Your task to perform on an android device: turn off data saver in the chrome app Image 0: 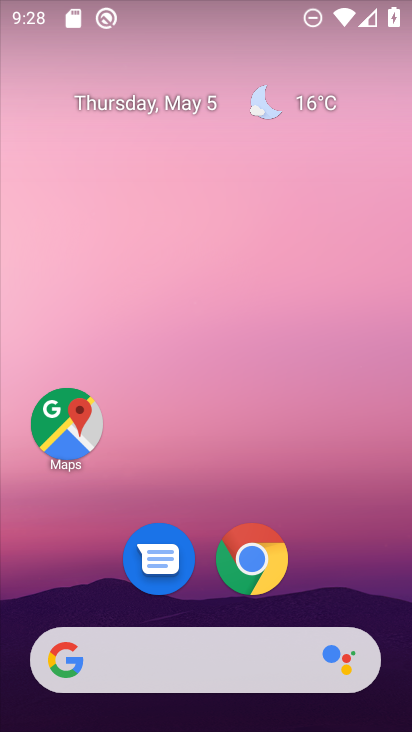
Step 0: click (251, 564)
Your task to perform on an android device: turn off data saver in the chrome app Image 1: 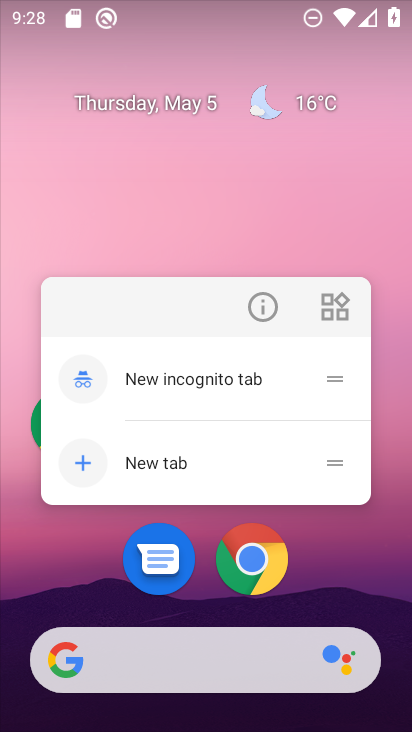
Step 1: click (255, 564)
Your task to perform on an android device: turn off data saver in the chrome app Image 2: 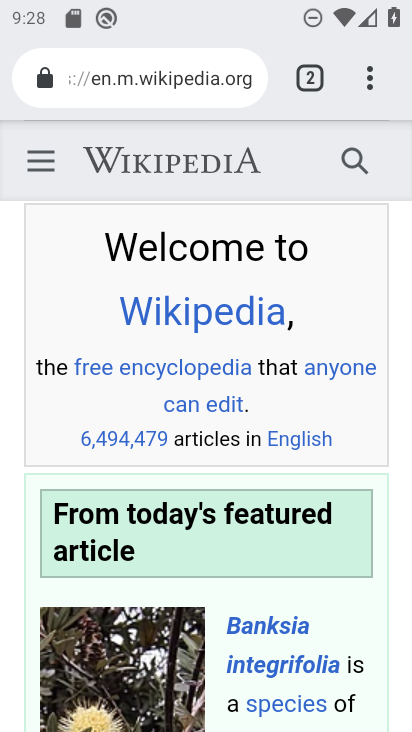
Step 2: drag from (369, 79) to (117, 622)
Your task to perform on an android device: turn off data saver in the chrome app Image 3: 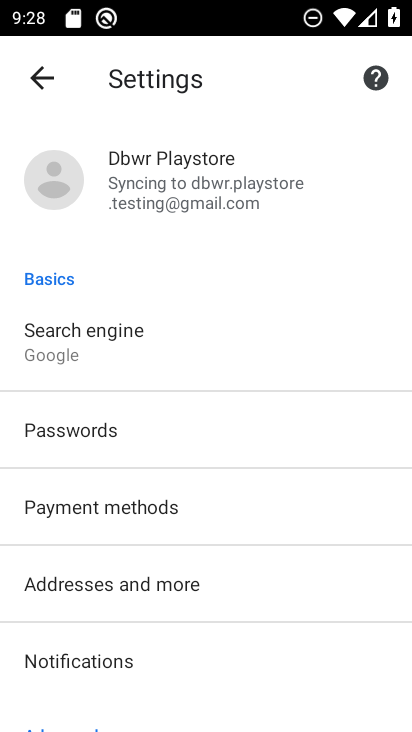
Step 3: drag from (227, 625) to (216, 213)
Your task to perform on an android device: turn off data saver in the chrome app Image 4: 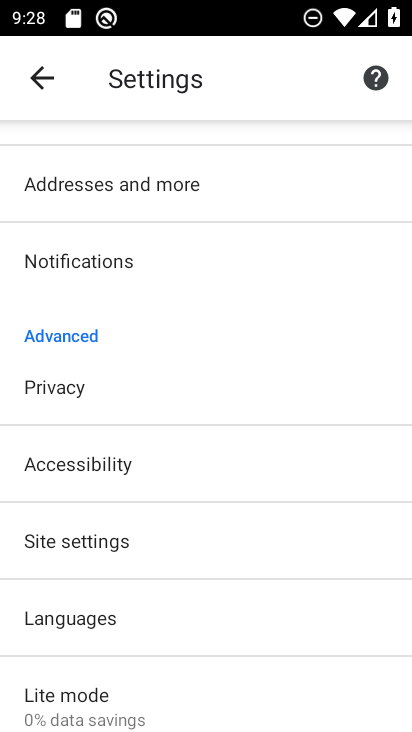
Step 4: drag from (220, 628) to (217, 327)
Your task to perform on an android device: turn off data saver in the chrome app Image 5: 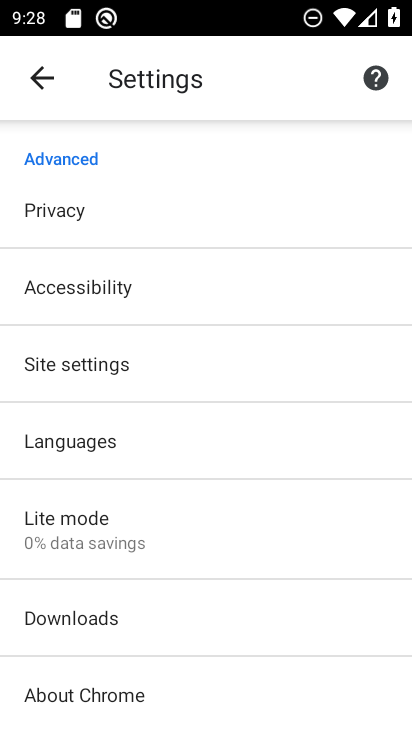
Step 5: click (81, 533)
Your task to perform on an android device: turn off data saver in the chrome app Image 6: 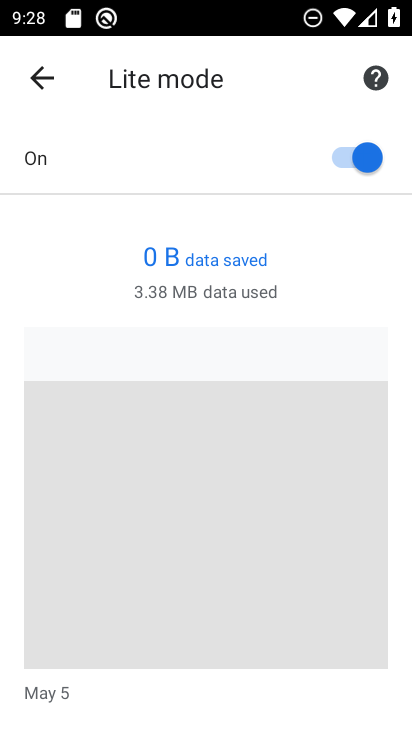
Step 6: click (366, 167)
Your task to perform on an android device: turn off data saver in the chrome app Image 7: 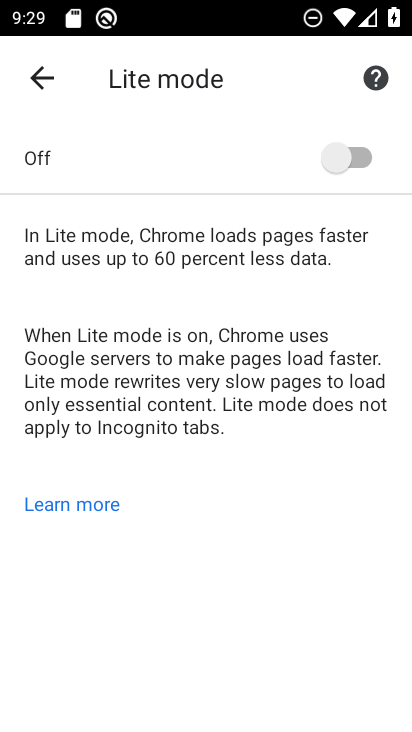
Step 7: task complete